Your task to perform on an android device: Is it going to rain today? Image 0: 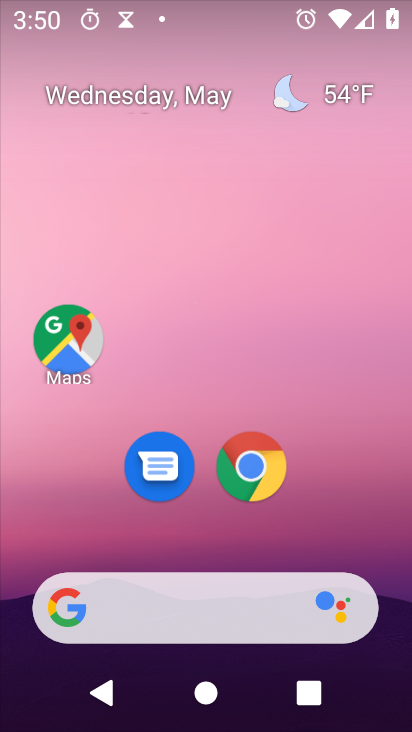
Step 0: click (265, 469)
Your task to perform on an android device: Is it going to rain today? Image 1: 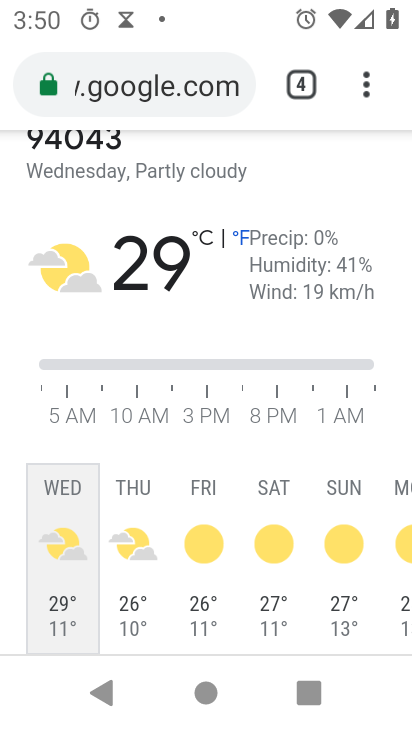
Step 1: click (207, 81)
Your task to perform on an android device: Is it going to rain today? Image 2: 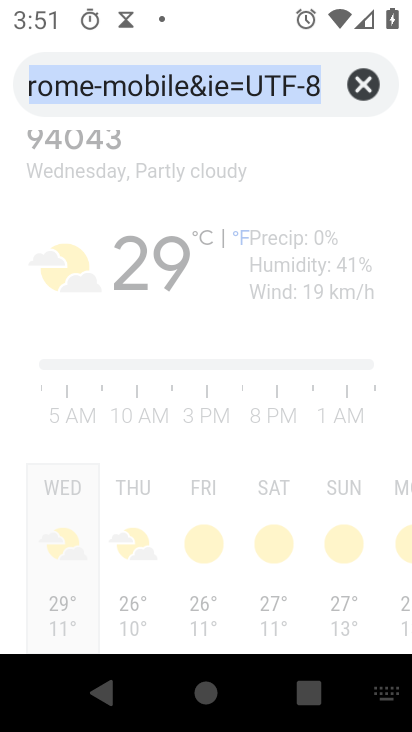
Step 2: type "Is it going to rain today?"
Your task to perform on an android device: Is it going to rain today? Image 3: 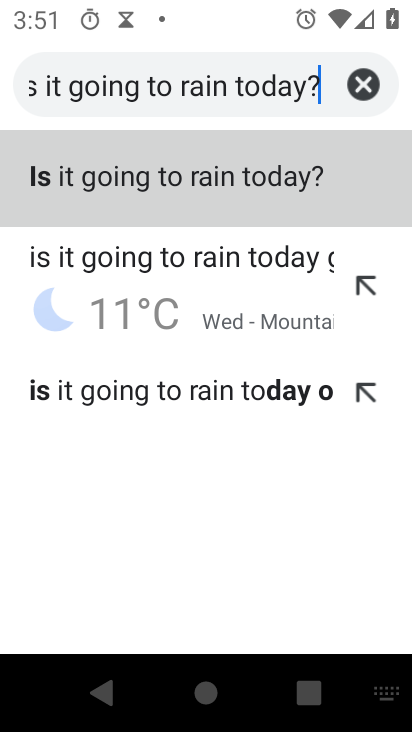
Step 3: click (262, 177)
Your task to perform on an android device: Is it going to rain today? Image 4: 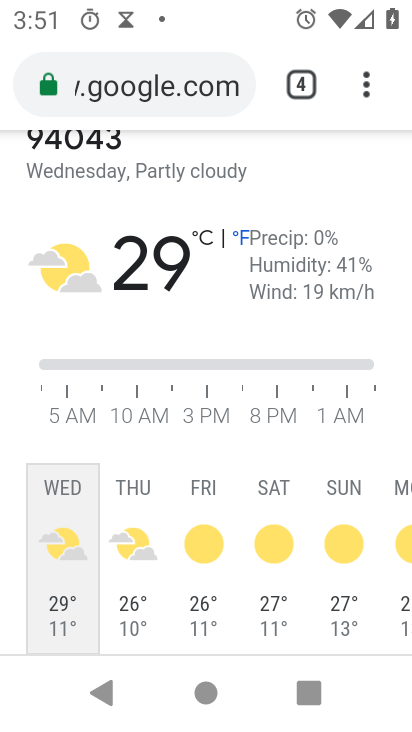
Step 4: task complete